Your task to perform on an android device: Check my gmail Image 0: 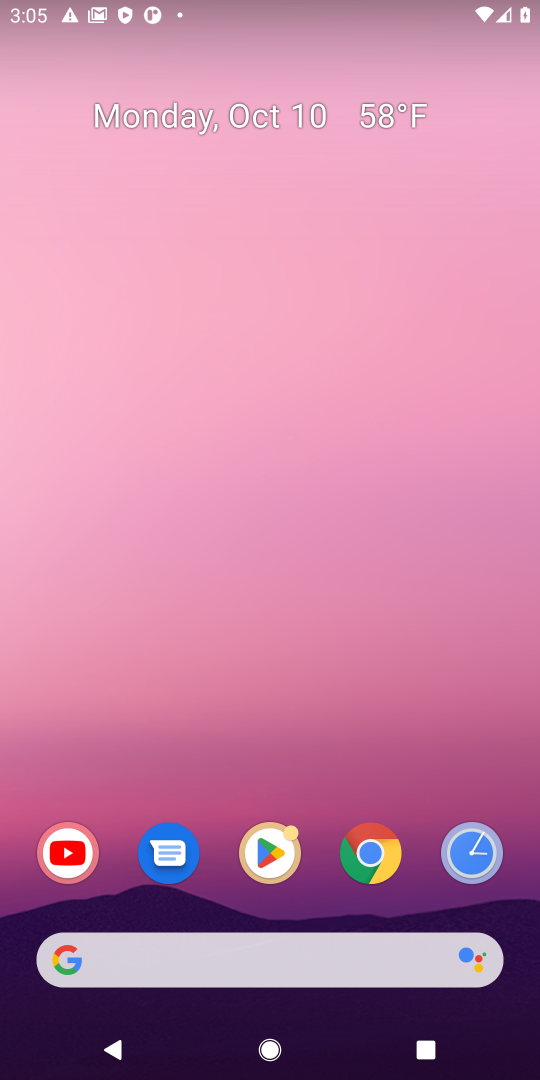
Step 0: click (339, 31)
Your task to perform on an android device: Check my gmail Image 1: 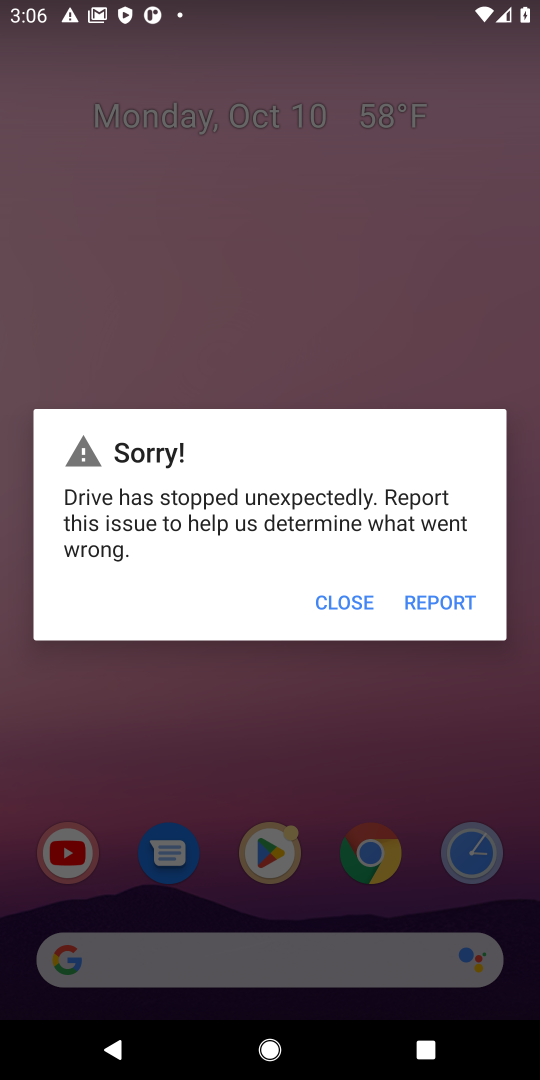
Step 1: click (345, 602)
Your task to perform on an android device: Check my gmail Image 2: 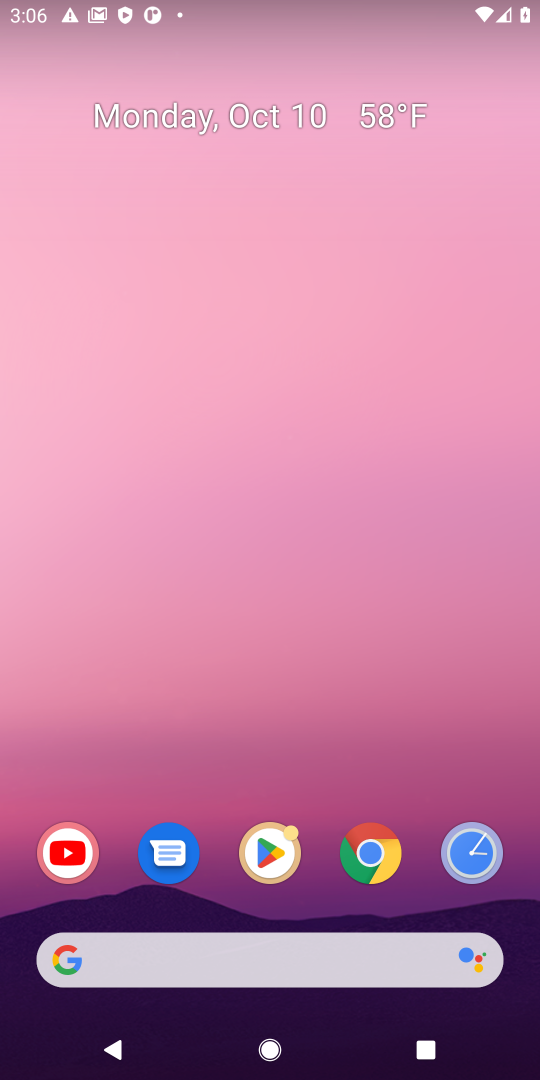
Step 2: click (196, 967)
Your task to perform on an android device: Check my gmail Image 3: 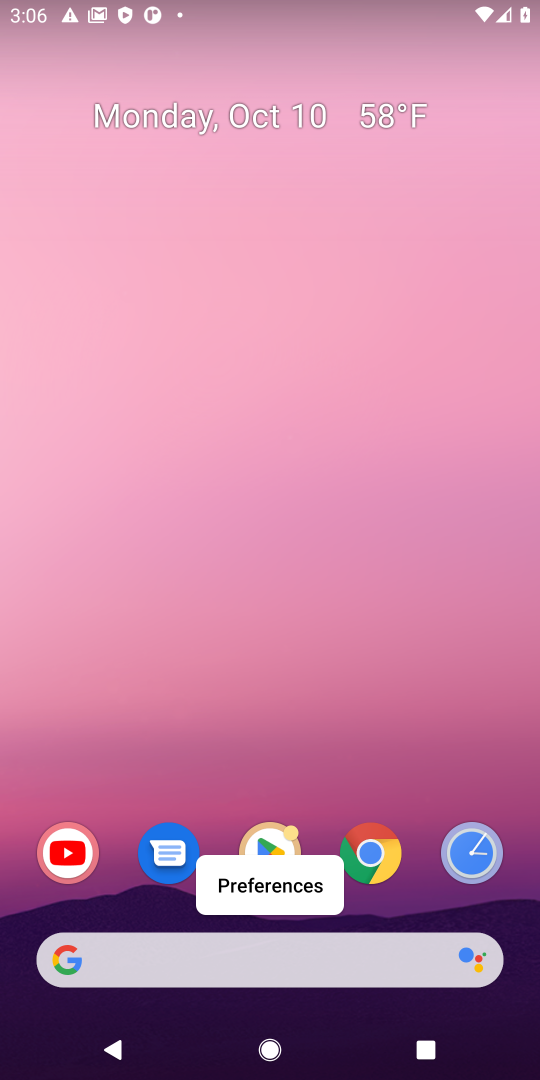
Step 3: drag from (276, 717) to (358, 103)
Your task to perform on an android device: Check my gmail Image 4: 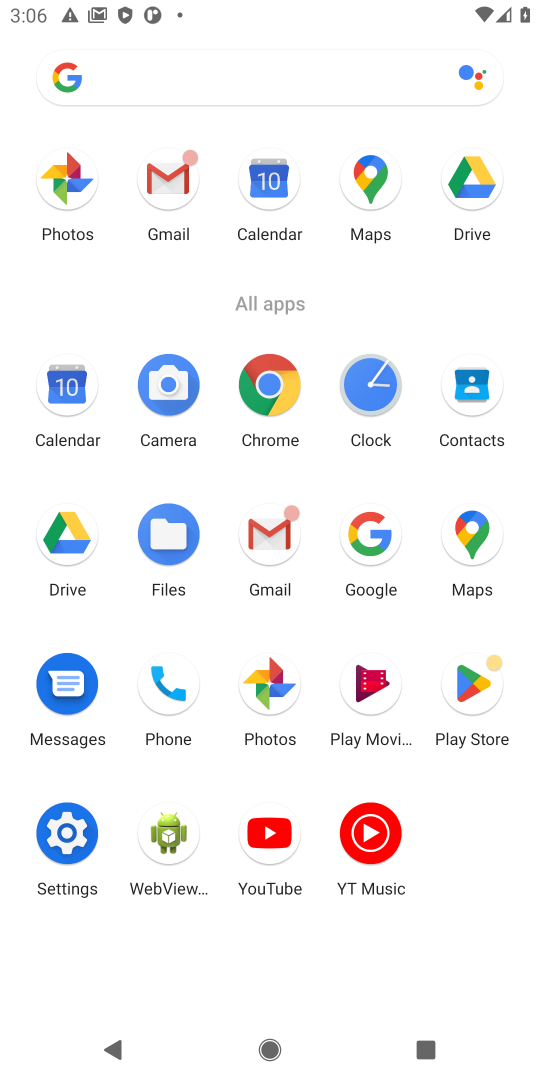
Step 4: click (153, 162)
Your task to perform on an android device: Check my gmail Image 5: 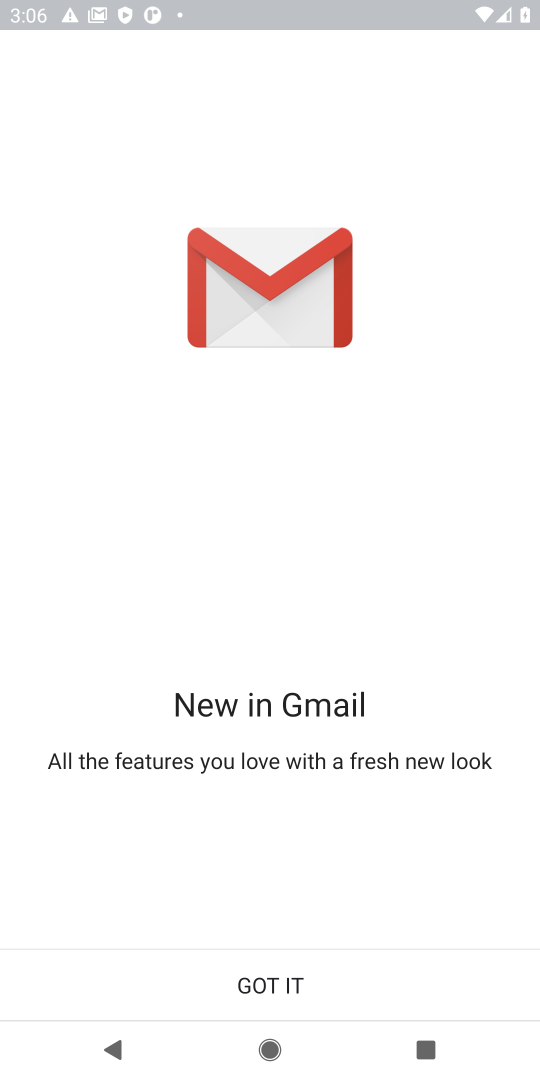
Step 5: click (339, 990)
Your task to perform on an android device: Check my gmail Image 6: 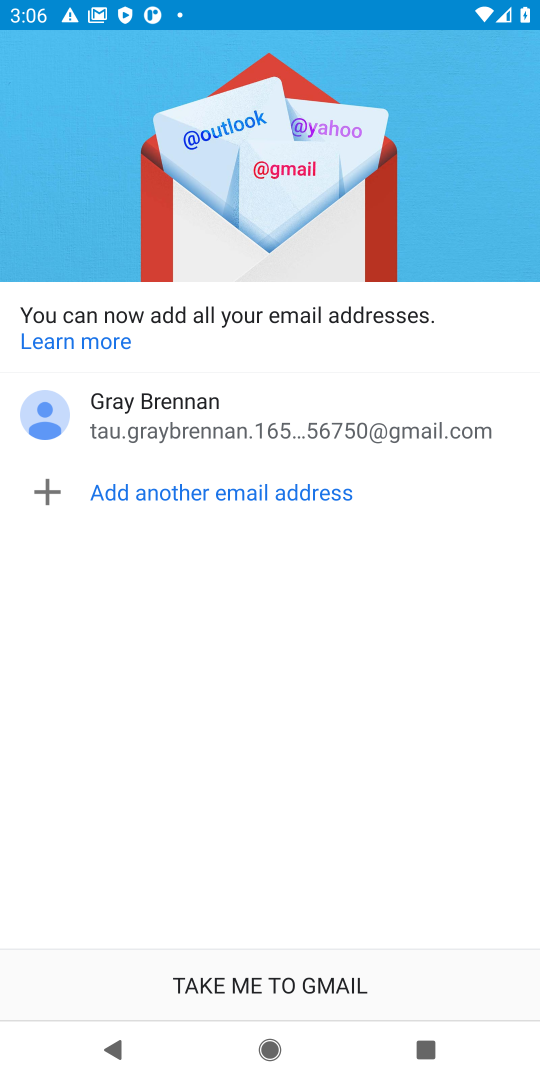
Step 6: click (279, 1006)
Your task to perform on an android device: Check my gmail Image 7: 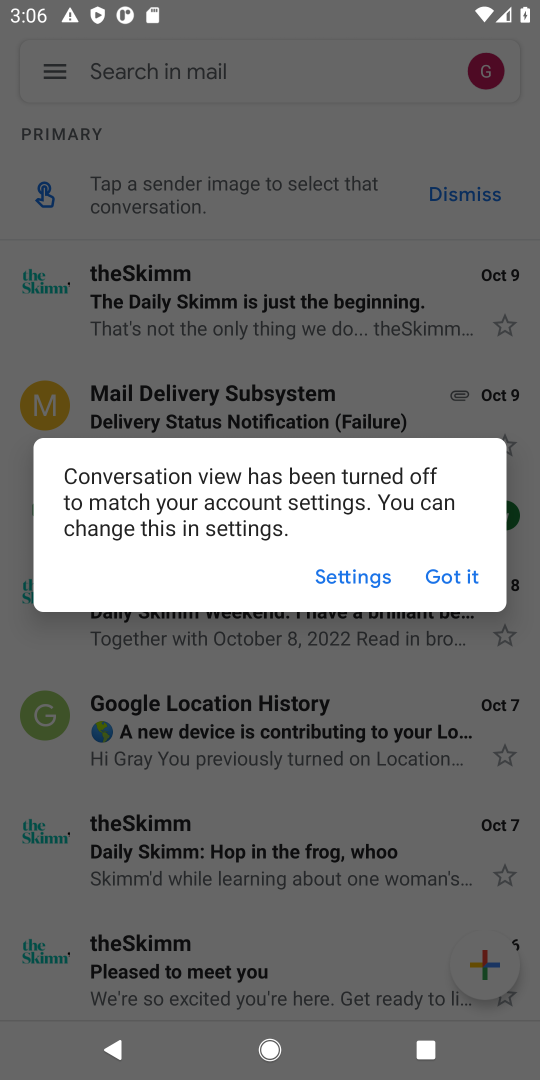
Step 7: click (427, 570)
Your task to perform on an android device: Check my gmail Image 8: 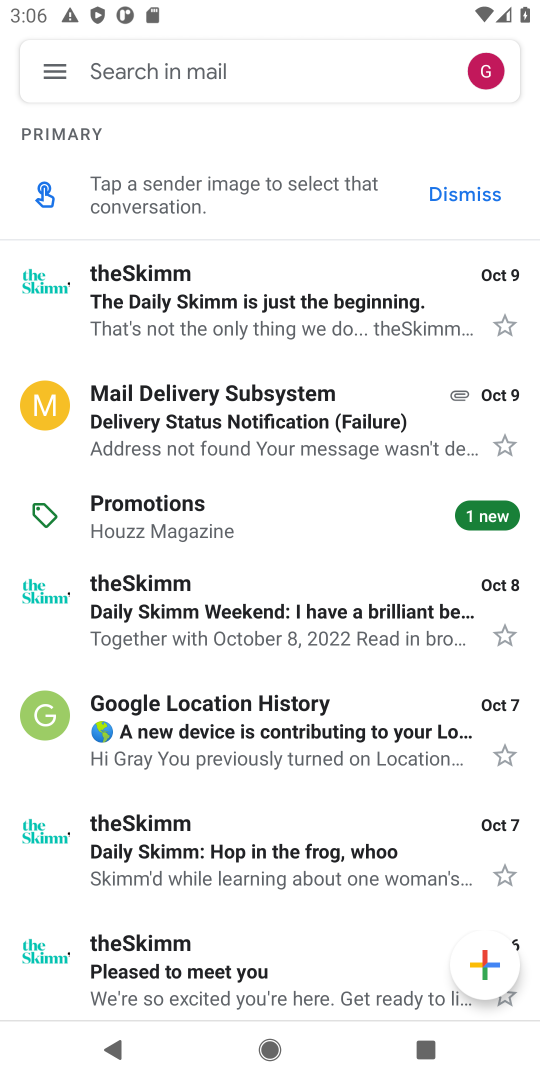
Step 8: task complete